Your task to perform on an android device: uninstall "Google Docs" Image 0: 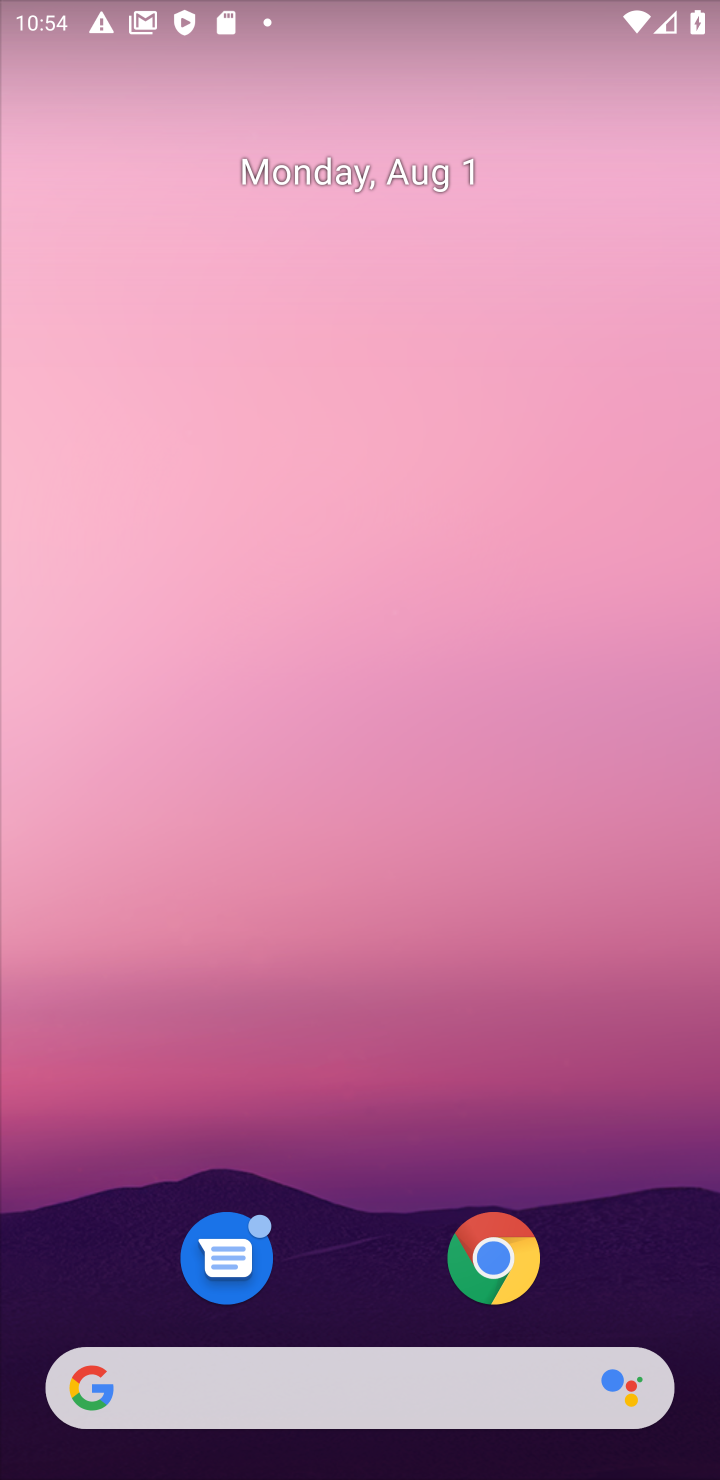
Step 0: drag from (595, 1207) to (603, 284)
Your task to perform on an android device: uninstall "Google Docs" Image 1: 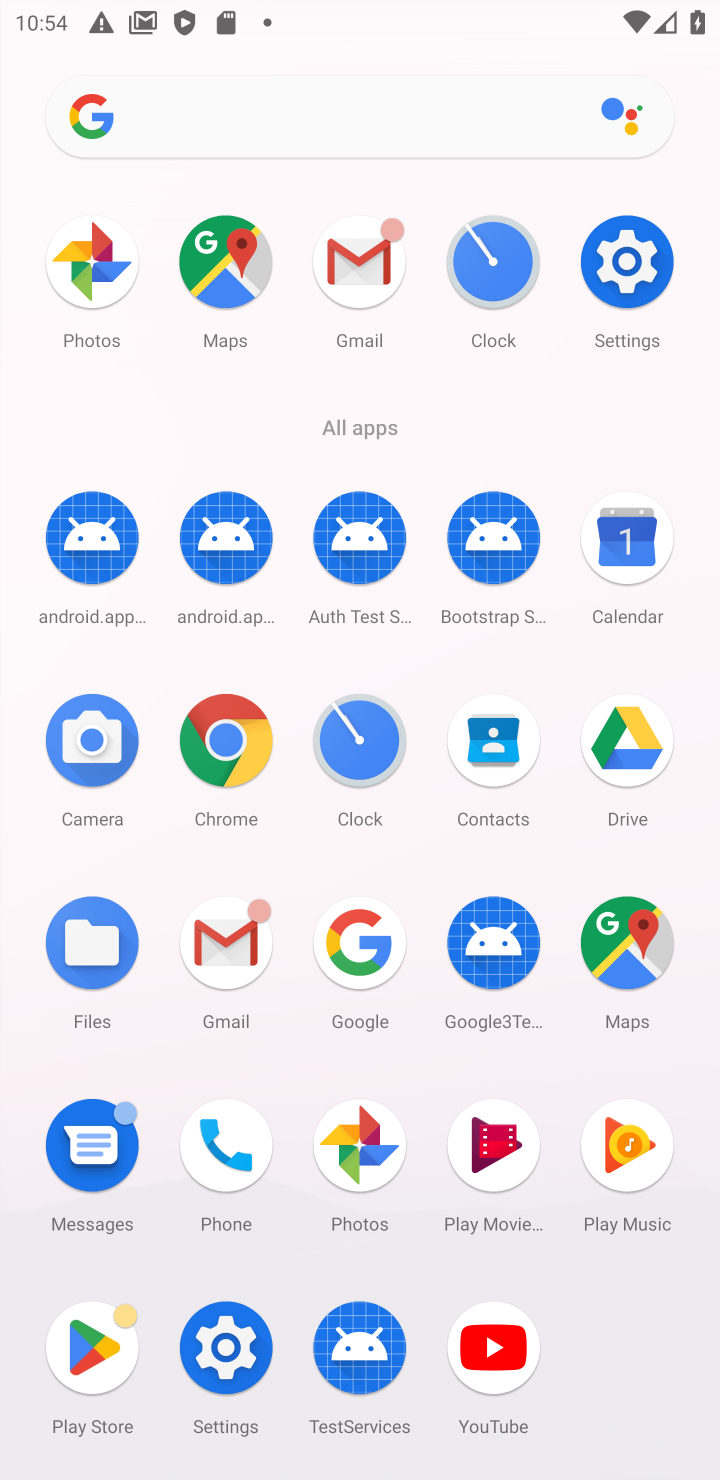
Step 1: click (97, 1339)
Your task to perform on an android device: uninstall "Google Docs" Image 2: 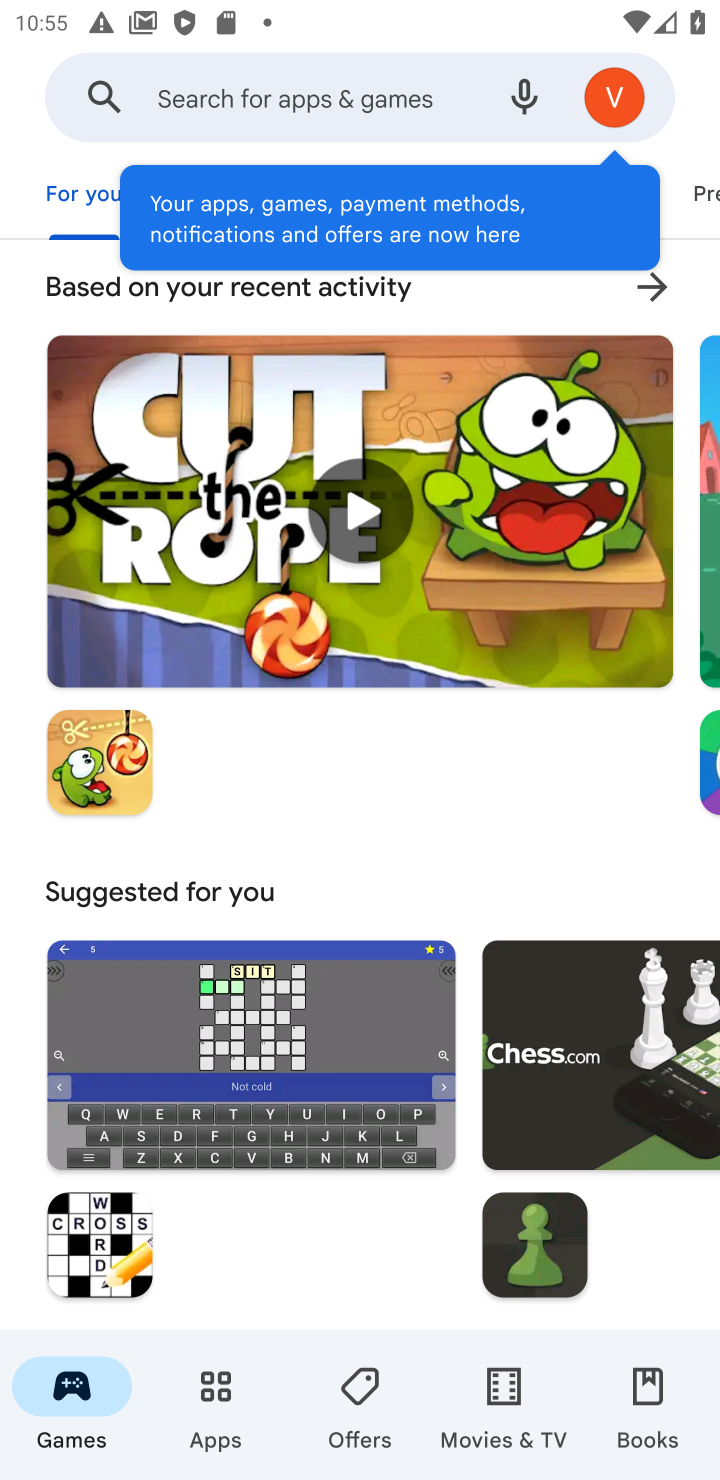
Step 2: click (329, 91)
Your task to perform on an android device: uninstall "Google Docs" Image 3: 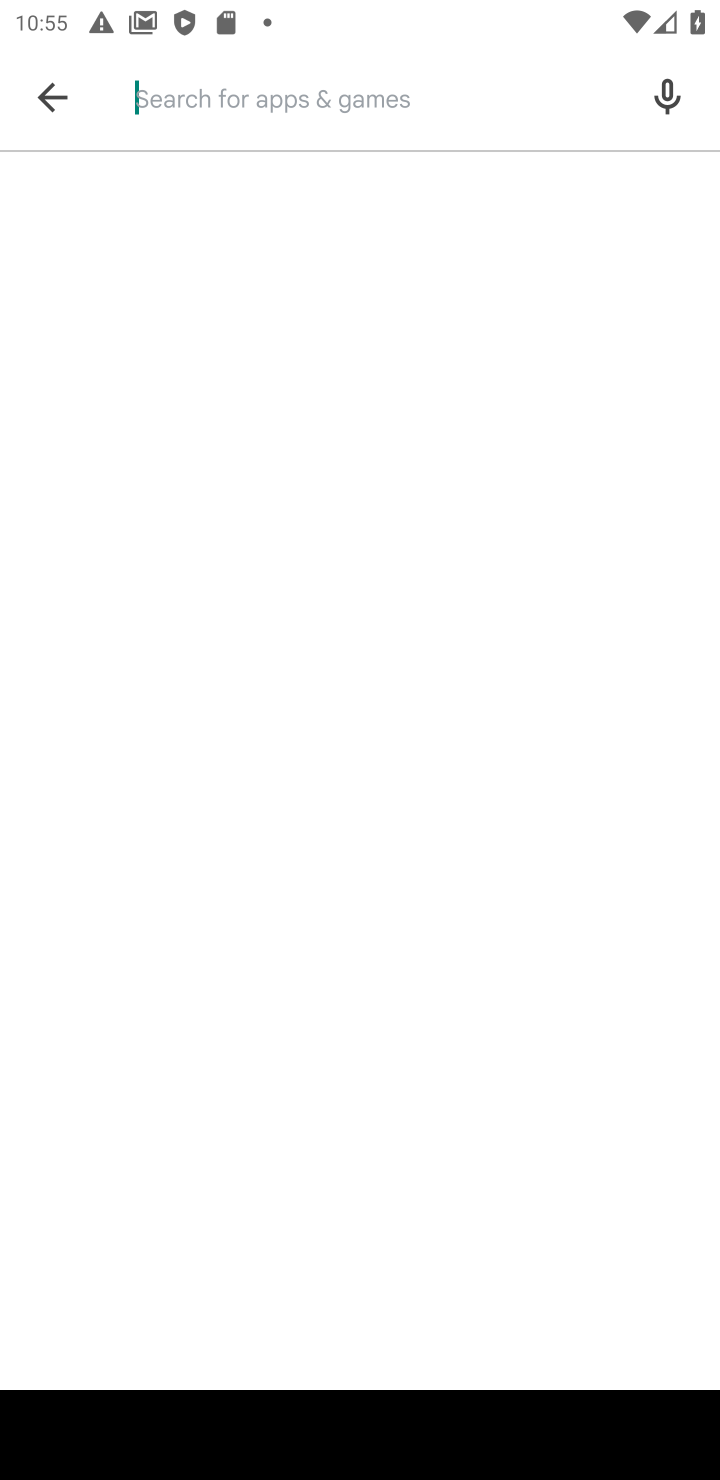
Step 3: type "google docs"
Your task to perform on an android device: uninstall "Google Docs" Image 4: 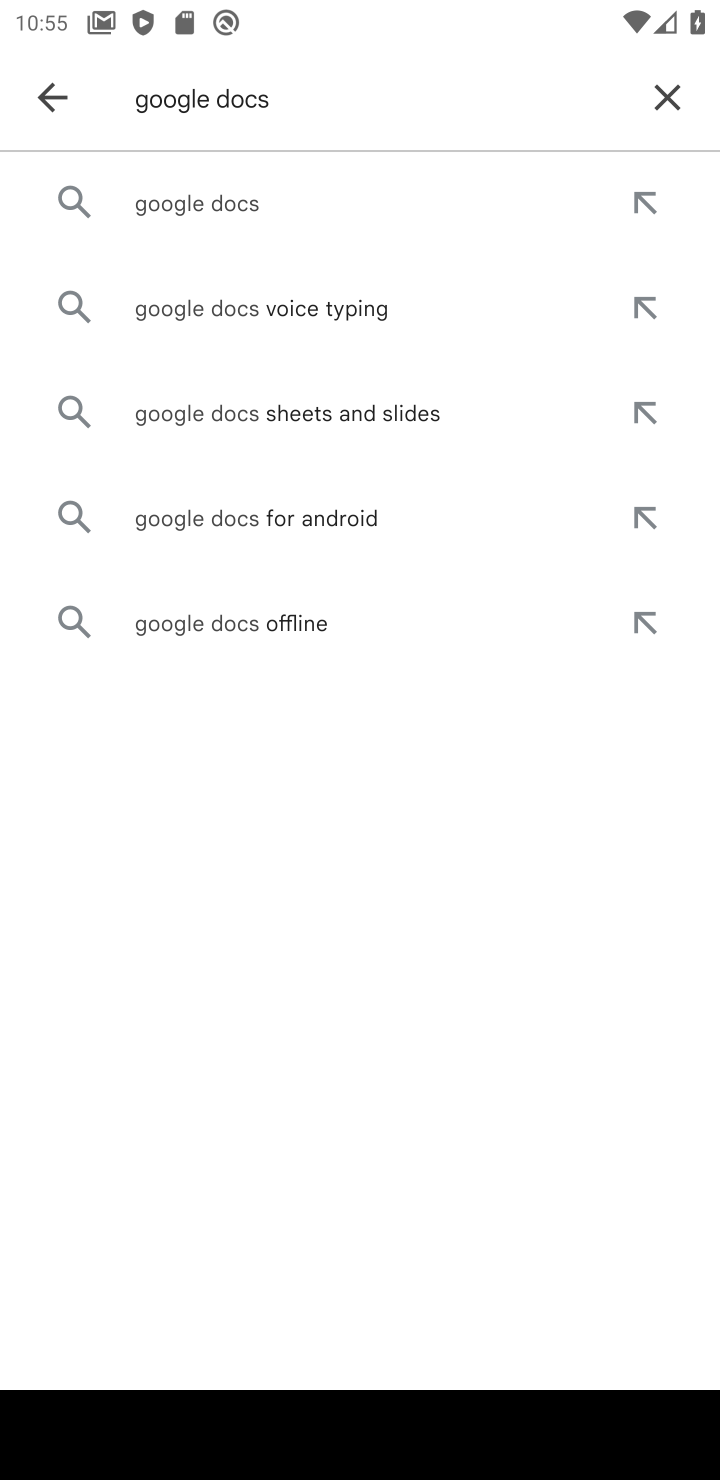
Step 4: click (360, 197)
Your task to perform on an android device: uninstall "Google Docs" Image 5: 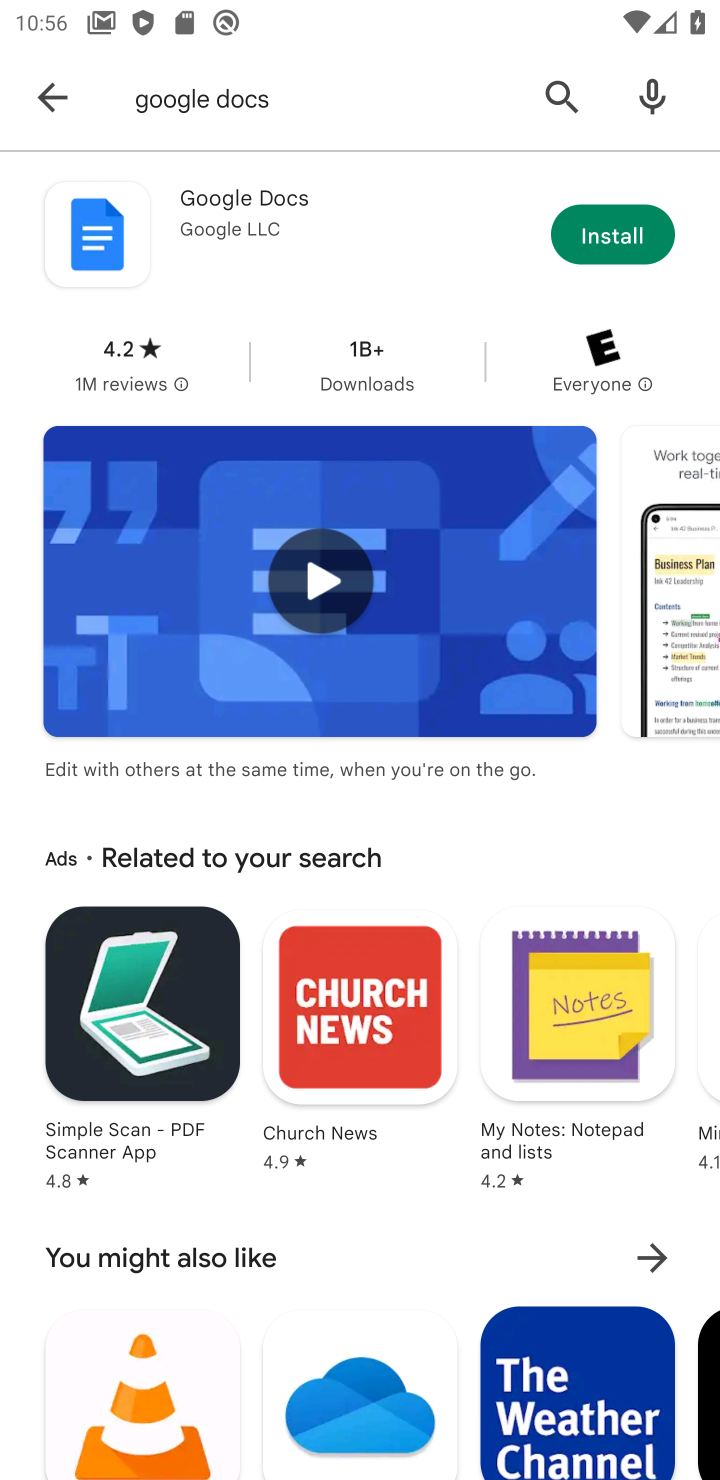
Step 5: task complete